Your task to perform on an android device: What's the weather going to be this weekend? Image 0: 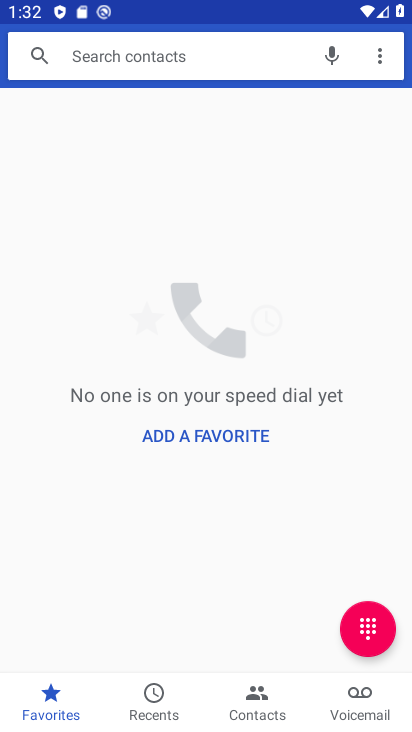
Step 0: press home button
Your task to perform on an android device: What's the weather going to be this weekend? Image 1: 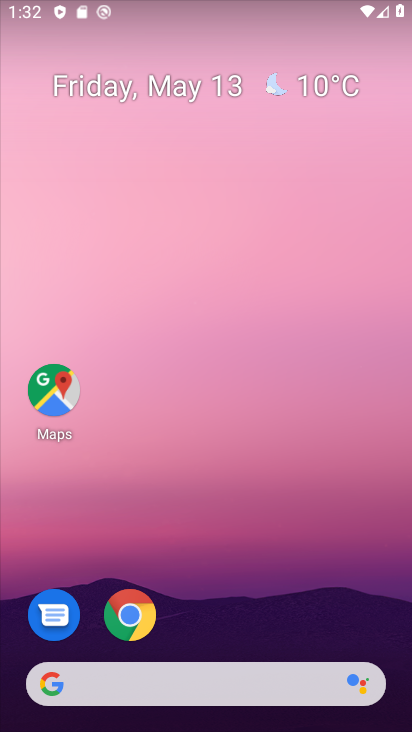
Step 1: click (126, 604)
Your task to perform on an android device: What's the weather going to be this weekend? Image 2: 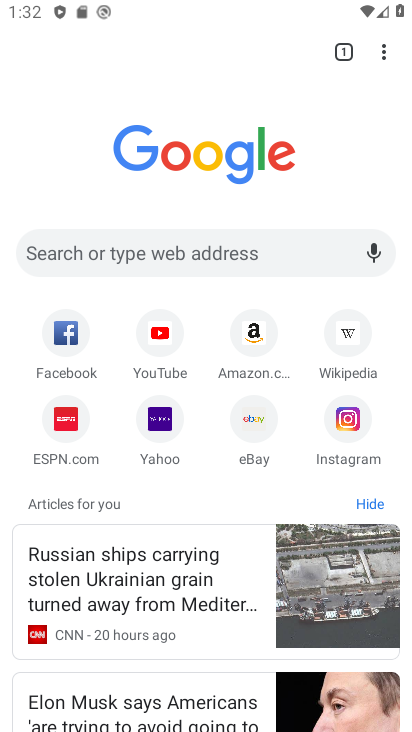
Step 2: click (170, 260)
Your task to perform on an android device: What's the weather going to be this weekend? Image 3: 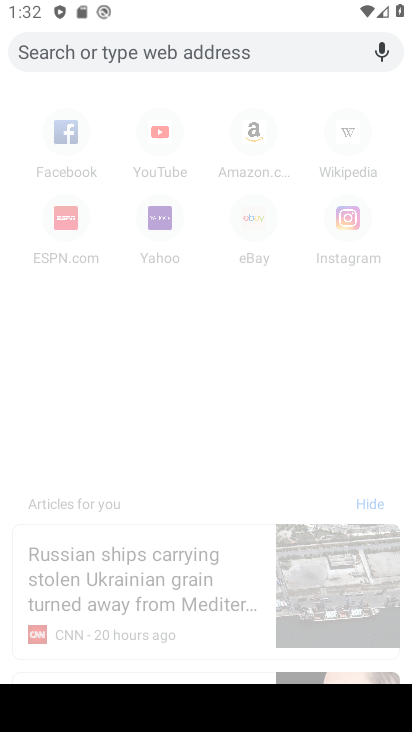
Step 3: type "what's the weather going to be this weekend"
Your task to perform on an android device: What's the weather going to be this weekend? Image 4: 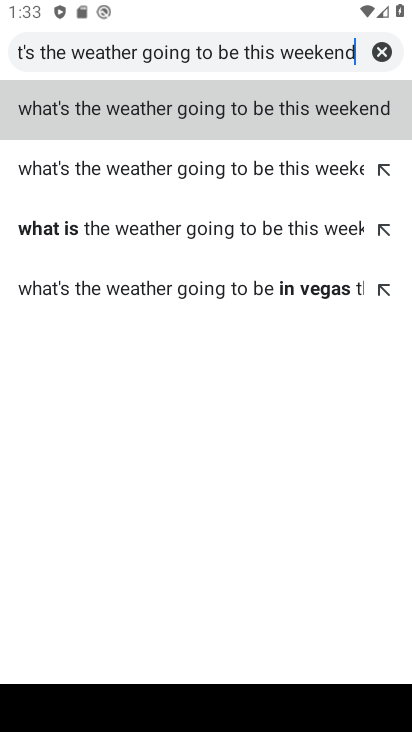
Step 4: click (320, 113)
Your task to perform on an android device: What's the weather going to be this weekend? Image 5: 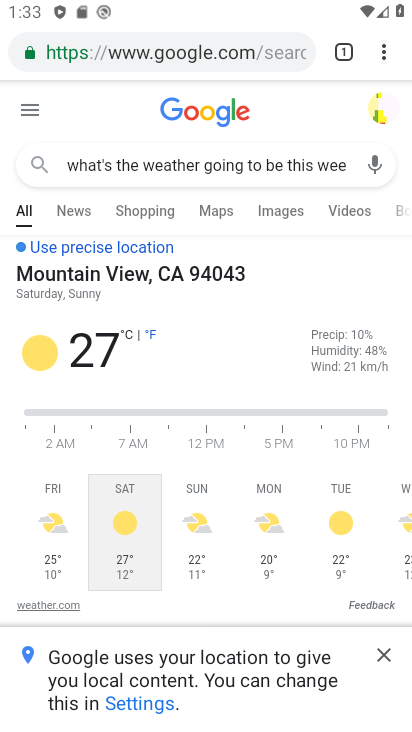
Step 5: click (198, 527)
Your task to perform on an android device: What's the weather going to be this weekend? Image 6: 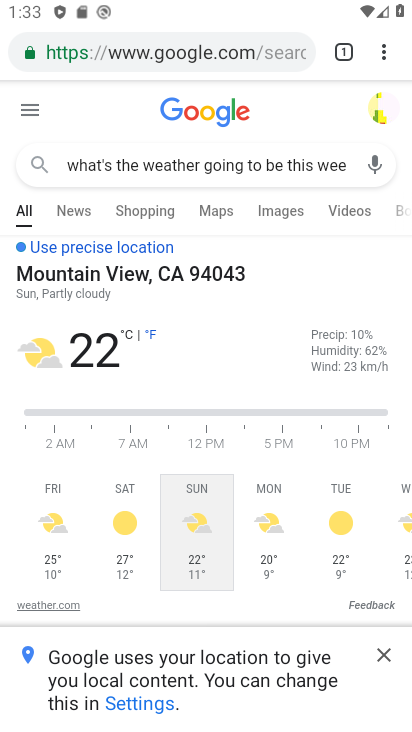
Step 6: task complete